Your task to perform on an android device: open wifi settings Image 0: 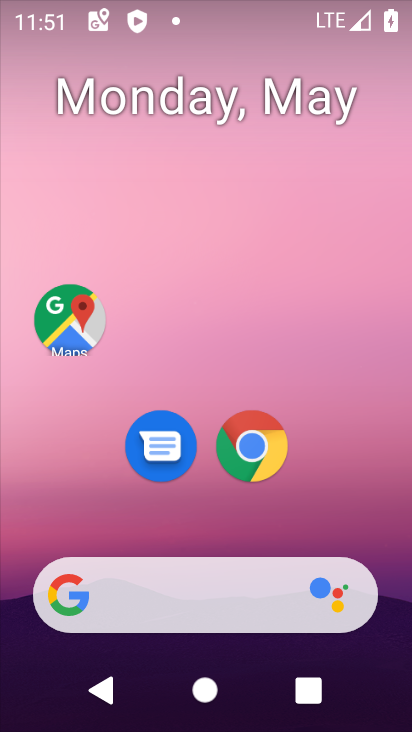
Step 0: drag from (369, 432) to (349, 22)
Your task to perform on an android device: open wifi settings Image 1: 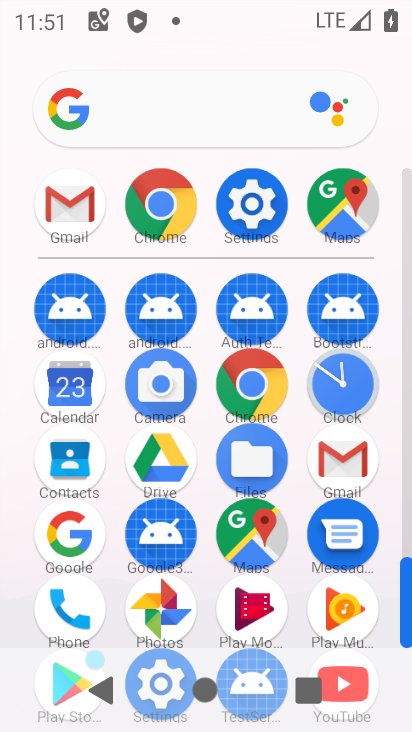
Step 1: click (253, 187)
Your task to perform on an android device: open wifi settings Image 2: 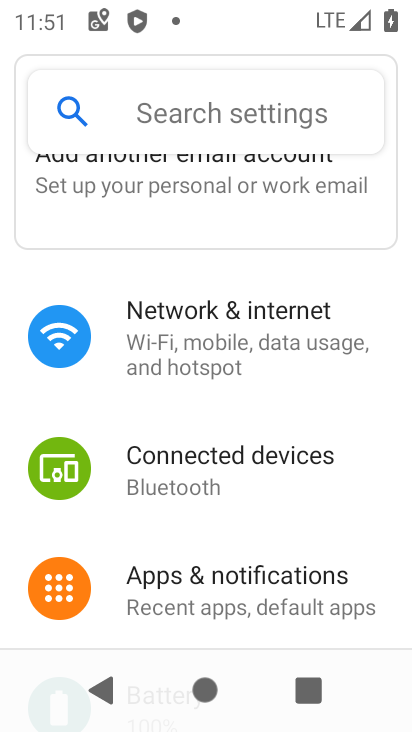
Step 2: click (188, 320)
Your task to perform on an android device: open wifi settings Image 3: 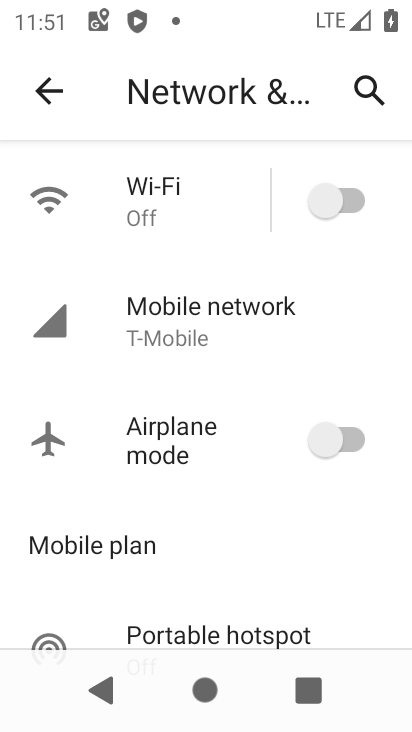
Step 3: click (193, 209)
Your task to perform on an android device: open wifi settings Image 4: 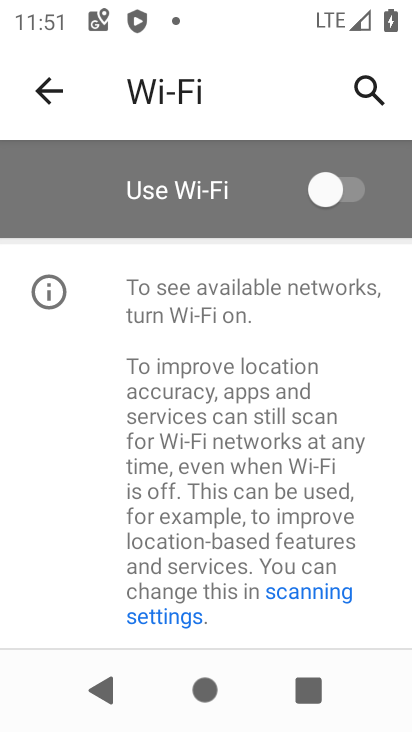
Step 4: task complete